Your task to perform on an android device: Search for pizza restaurants on Maps Image 0: 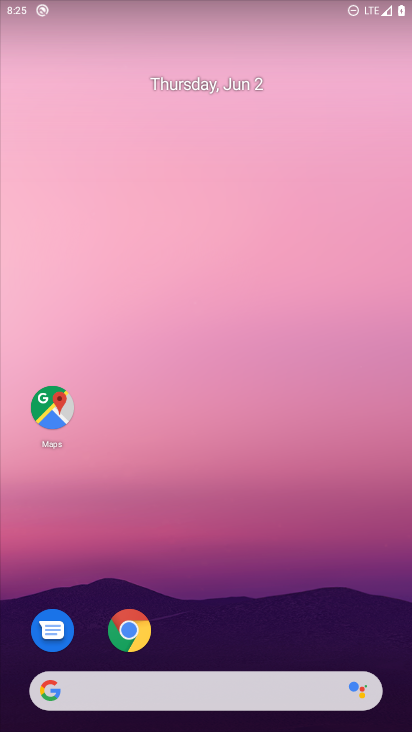
Step 0: click (56, 419)
Your task to perform on an android device: Search for pizza restaurants on Maps Image 1: 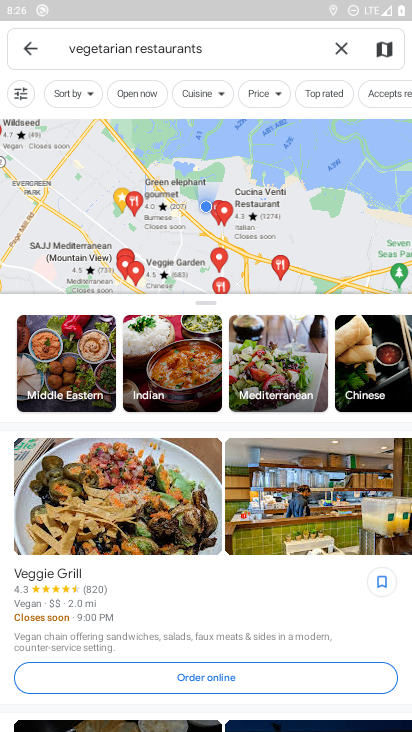
Step 1: click (350, 53)
Your task to perform on an android device: Search for pizza restaurants on Maps Image 2: 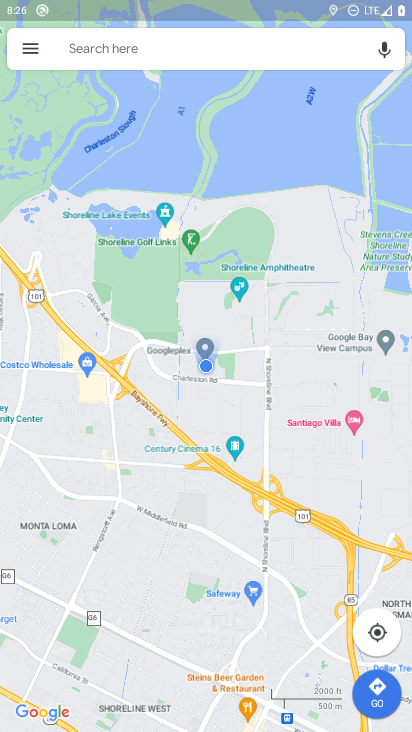
Step 2: click (183, 40)
Your task to perform on an android device: Search for pizza restaurants on Maps Image 3: 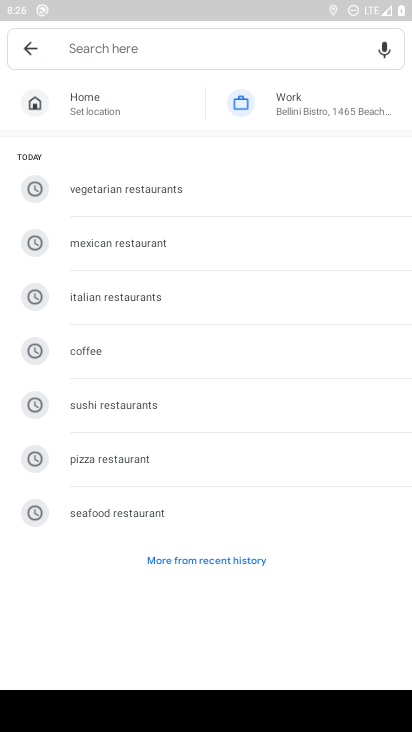
Step 3: click (101, 467)
Your task to perform on an android device: Search for pizza restaurants on Maps Image 4: 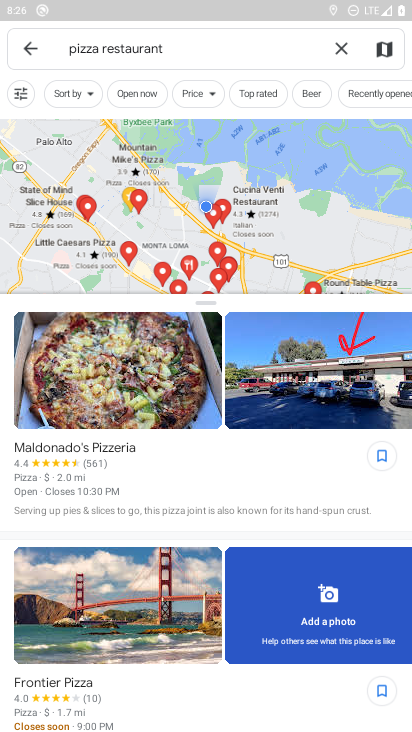
Step 4: task complete